Your task to perform on an android device: When is my next appointment? Image 0: 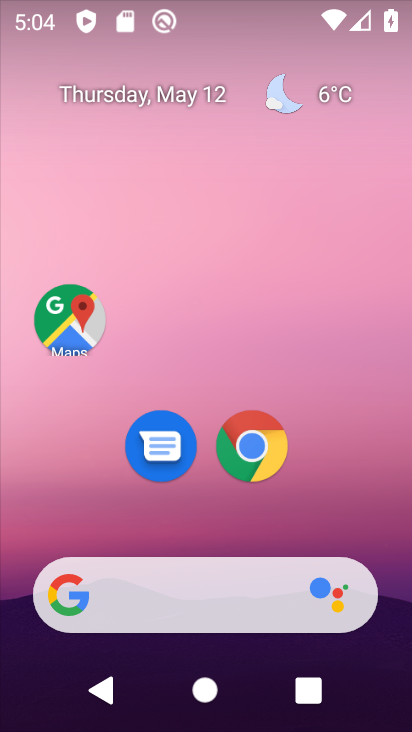
Step 0: drag from (325, 498) to (340, 110)
Your task to perform on an android device: When is my next appointment? Image 1: 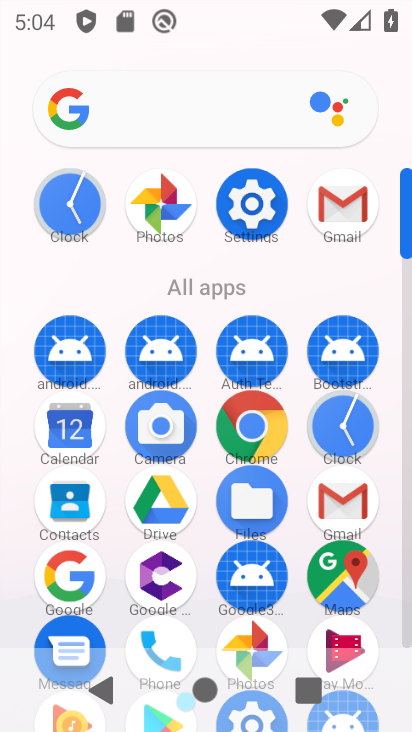
Step 1: click (68, 422)
Your task to perform on an android device: When is my next appointment? Image 2: 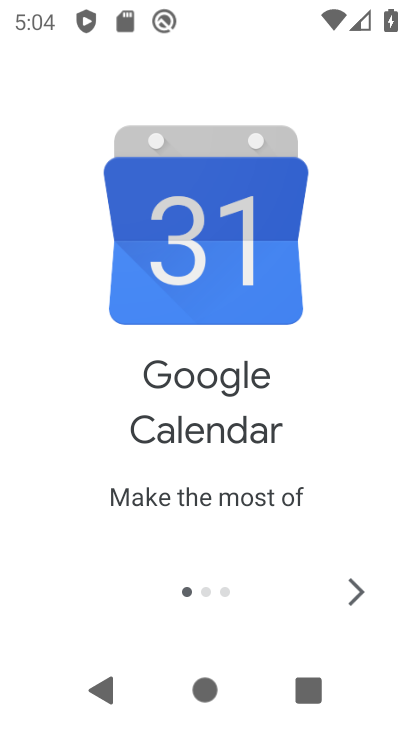
Step 2: click (363, 591)
Your task to perform on an android device: When is my next appointment? Image 3: 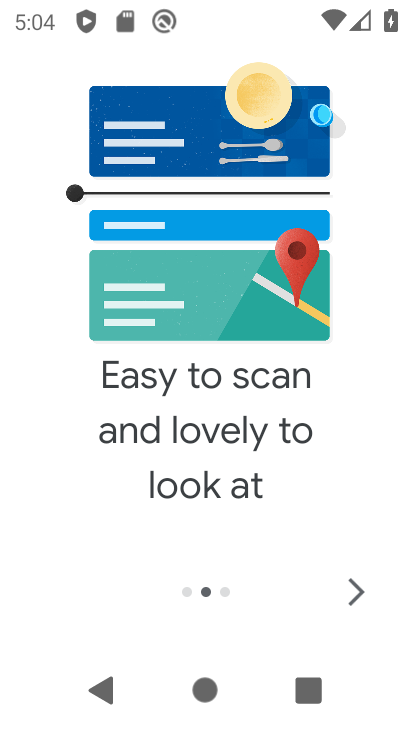
Step 3: click (363, 591)
Your task to perform on an android device: When is my next appointment? Image 4: 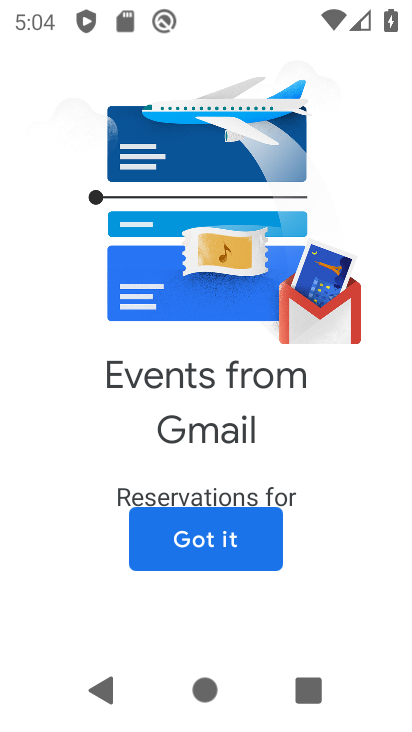
Step 4: click (260, 535)
Your task to perform on an android device: When is my next appointment? Image 5: 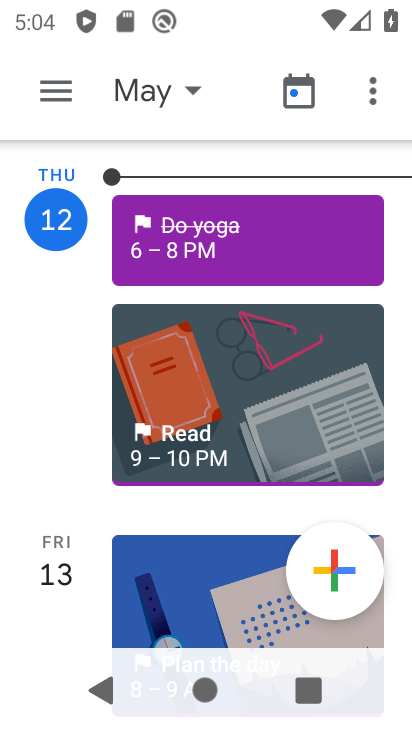
Step 5: click (53, 83)
Your task to perform on an android device: When is my next appointment? Image 6: 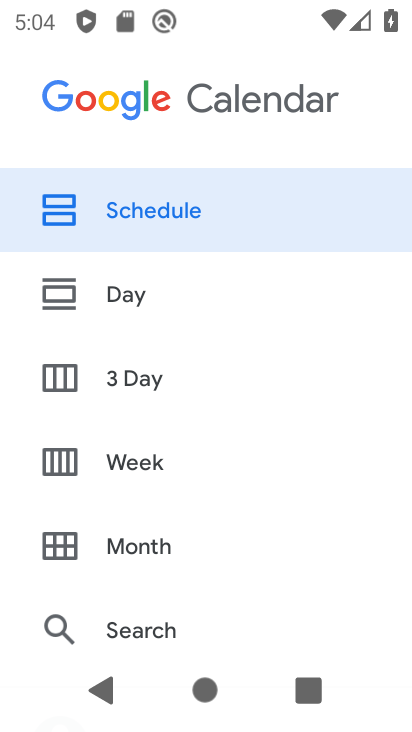
Step 6: click (144, 201)
Your task to perform on an android device: When is my next appointment? Image 7: 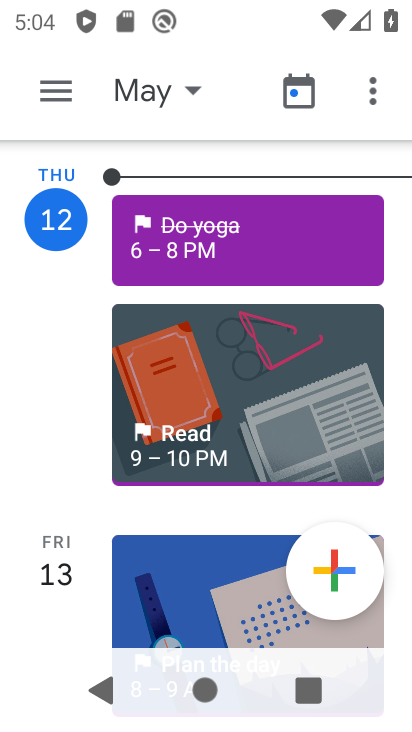
Step 7: drag from (210, 594) to (218, 241)
Your task to perform on an android device: When is my next appointment? Image 8: 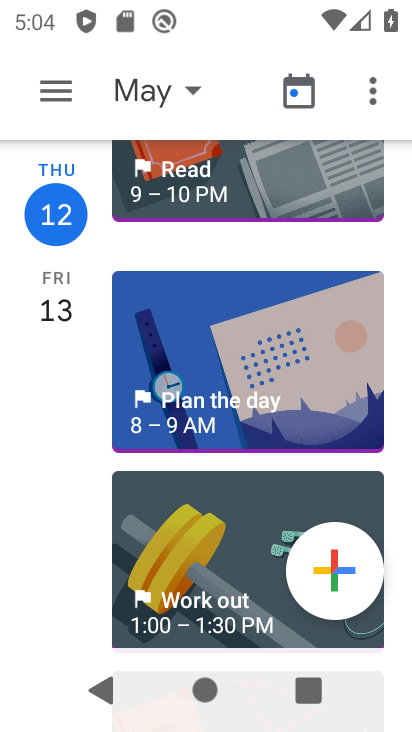
Step 8: drag from (184, 611) to (230, 275)
Your task to perform on an android device: When is my next appointment? Image 9: 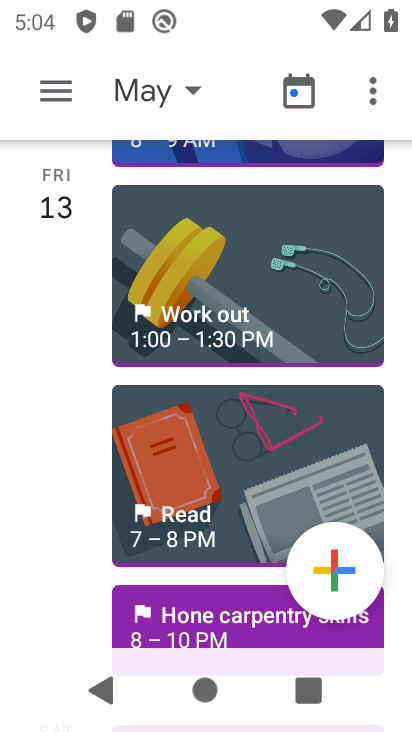
Step 9: click (305, 225)
Your task to perform on an android device: When is my next appointment? Image 10: 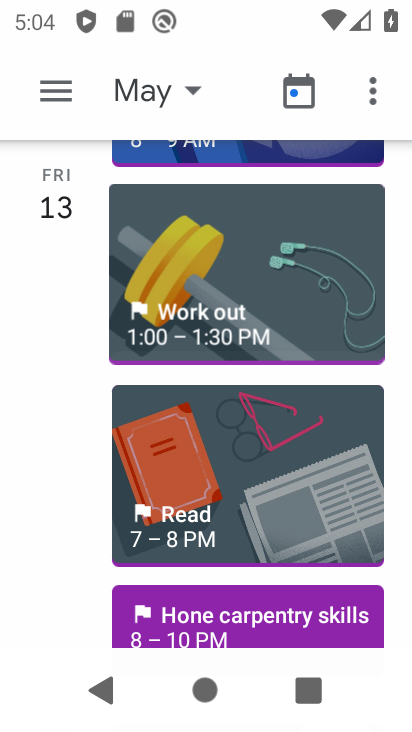
Step 10: drag from (255, 566) to (265, 237)
Your task to perform on an android device: When is my next appointment? Image 11: 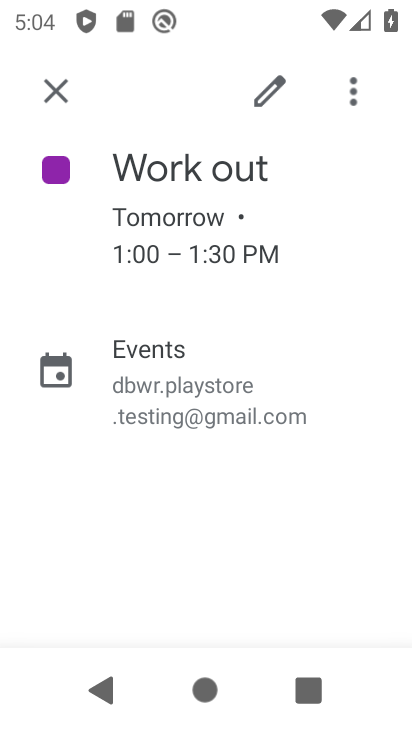
Step 11: click (54, 85)
Your task to perform on an android device: When is my next appointment? Image 12: 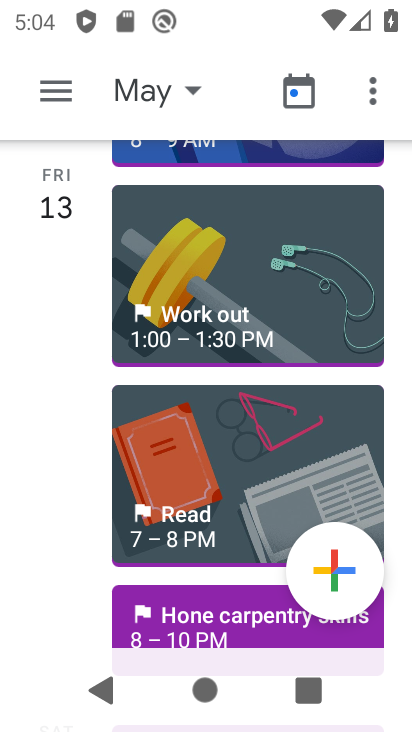
Step 12: task complete